Your task to perform on an android device: turn on javascript in the chrome app Image 0: 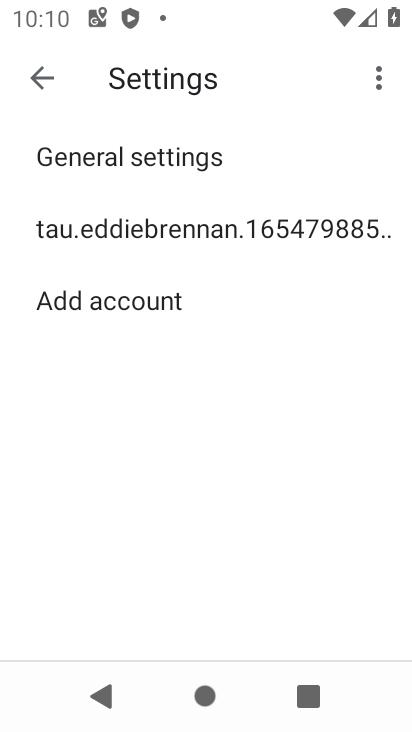
Step 0: press back button
Your task to perform on an android device: turn on javascript in the chrome app Image 1: 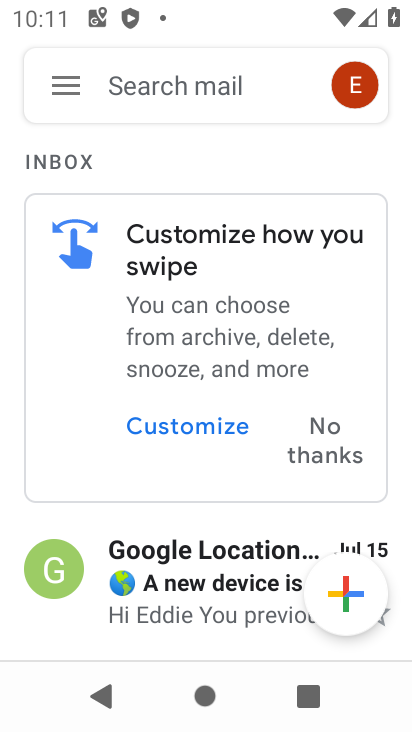
Step 1: press back button
Your task to perform on an android device: turn on javascript in the chrome app Image 2: 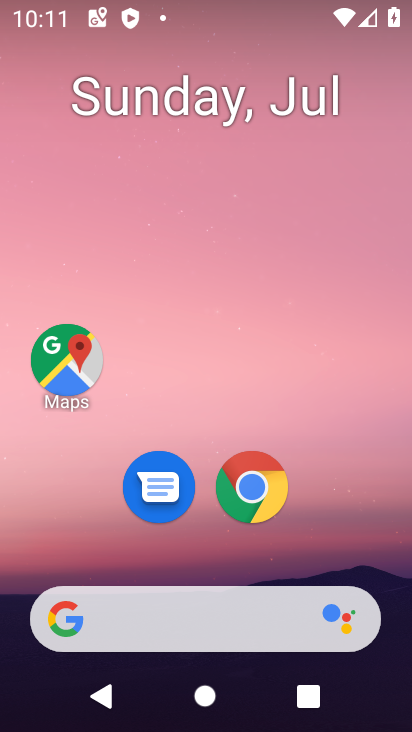
Step 2: click (250, 478)
Your task to perform on an android device: turn on javascript in the chrome app Image 3: 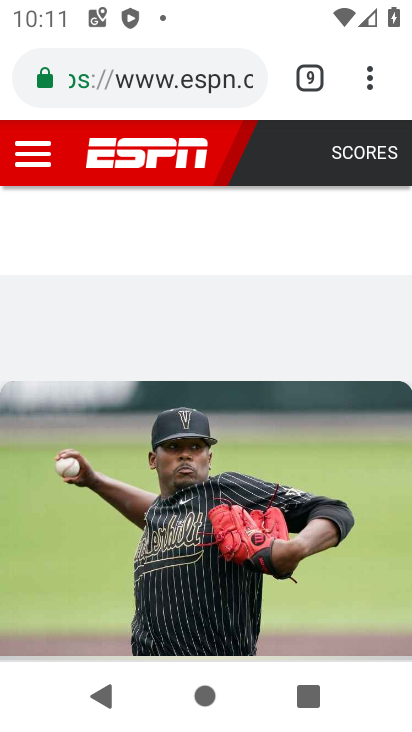
Step 3: drag from (365, 62) to (103, 555)
Your task to perform on an android device: turn on javascript in the chrome app Image 4: 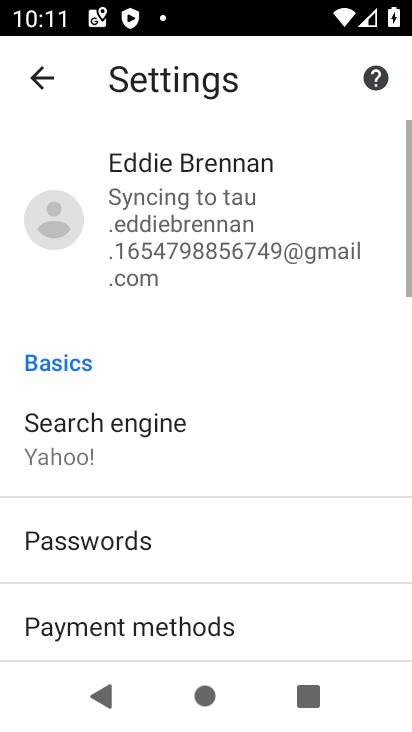
Step 4: drag from (137, 552) to (252, 35)
Your task to perform on an android device: turn on javascript in the chrome app Image 5: 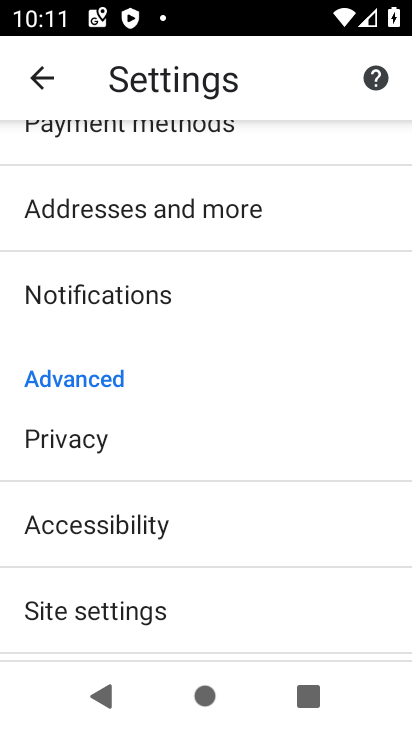
Step 5: drag from (174, 603) to (289, 110)
Your task to perform on an android device: turn on javascript in the chrome app Image 6: 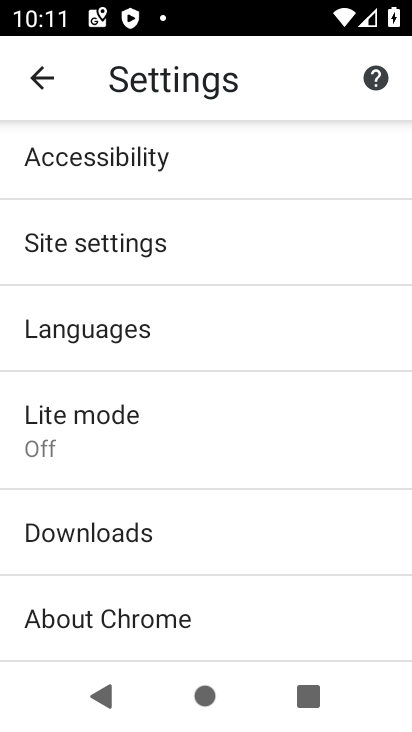
Step 6: click (98, 250)
Your task to perform on an android device: turn on javascript in the chrome app Image 7: 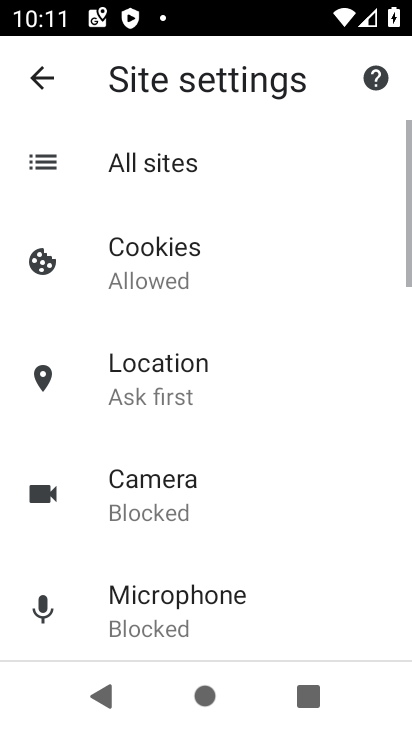
Step 7: drag from (198, 590) to (266, 168)
Your task to perform on an android device: turn on javascript in the chrome app Image 8: 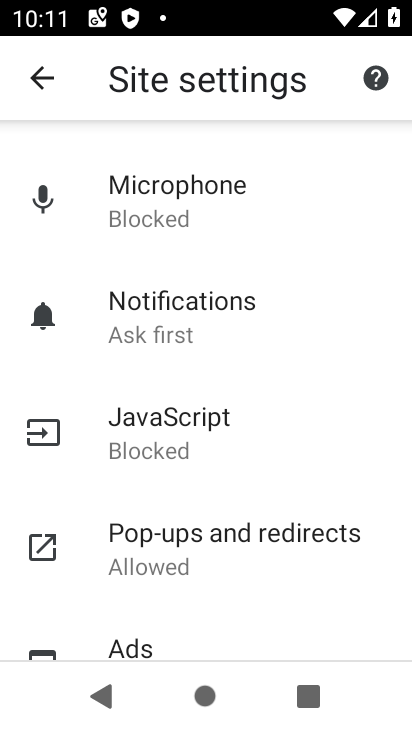
Step 8: click (199, 450)
Your task to perform on an android device: turn on javascript in the chrome app Image 9: 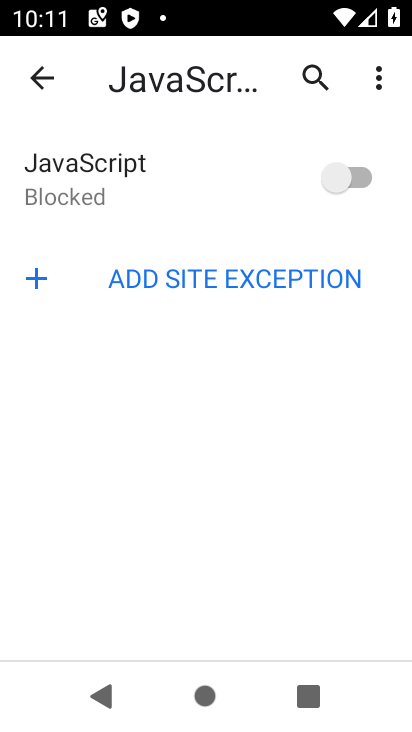
Step 9: click (352, 179)
Your task to perform on an android device: turn on javascript in the chrome app Image 10: 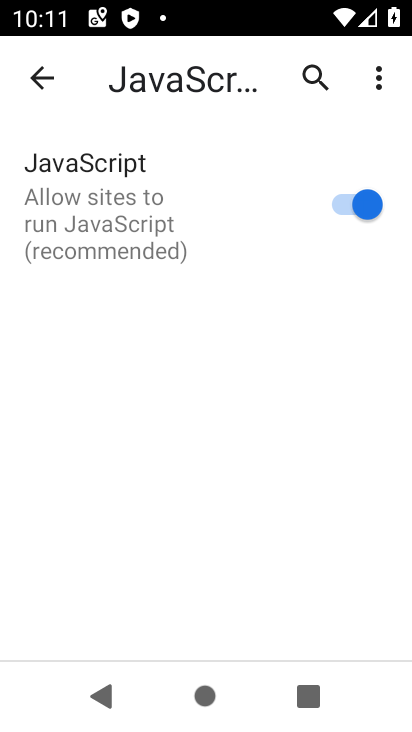
Step 10: task complete